Your task to perform on an android device: Go to Google maps Image 0: 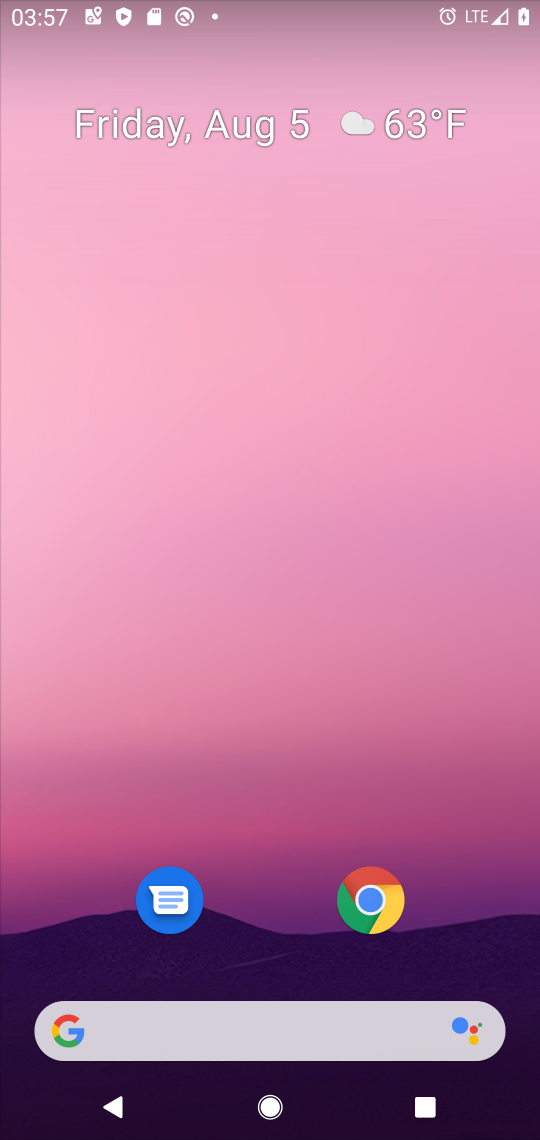
Step 0: drag from (227, 839) to (309, 275)
Your task to perform on an android device: Go to Google maps Image 1: 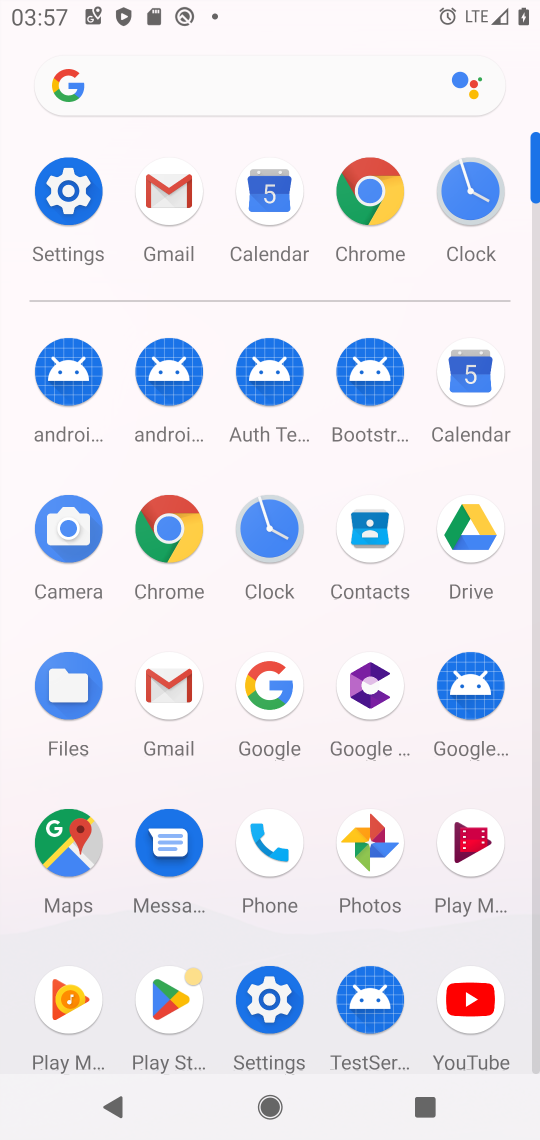
Step 1: click (83, 851)
Your task to perform on an android device: Go to Google maps Image 2: 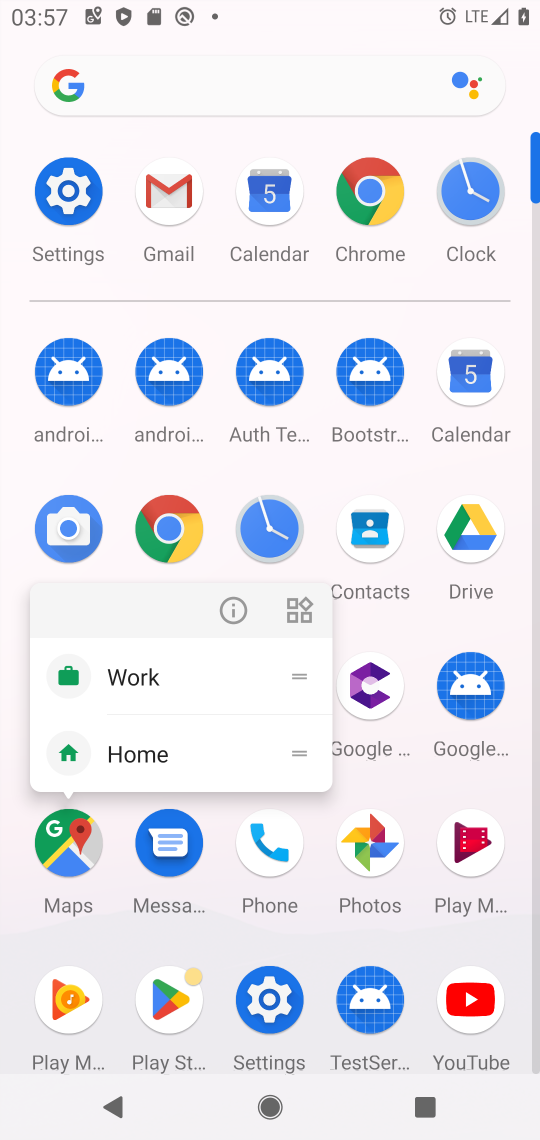
Step 2: click (75, 832)
Your task to perform on an android device: Go to Google maps Image 3: 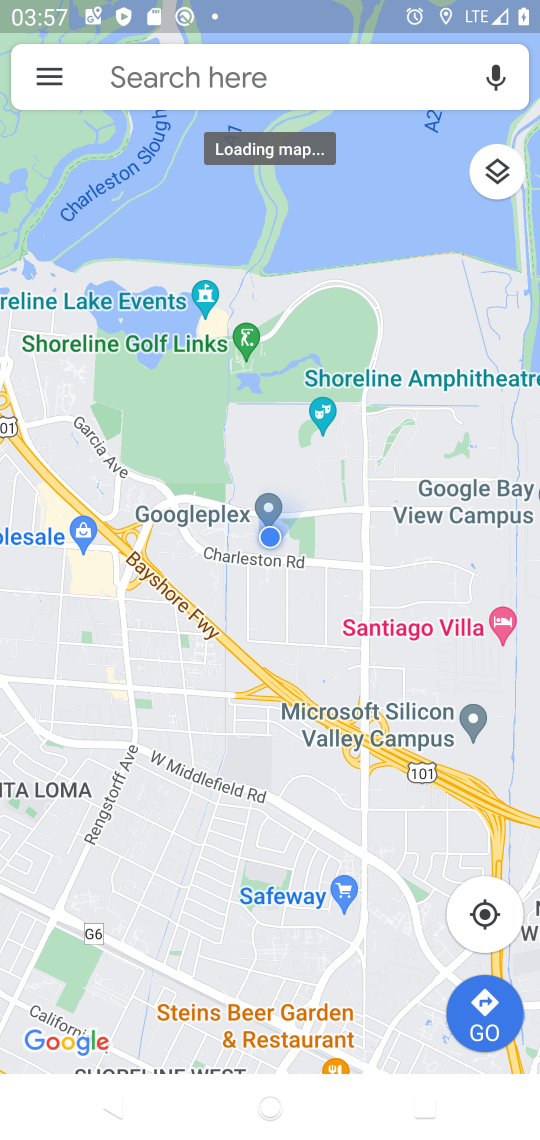
Step 3: task complete